Your task to perform on an android device: Clear the cart on ebay.com. Image 0: 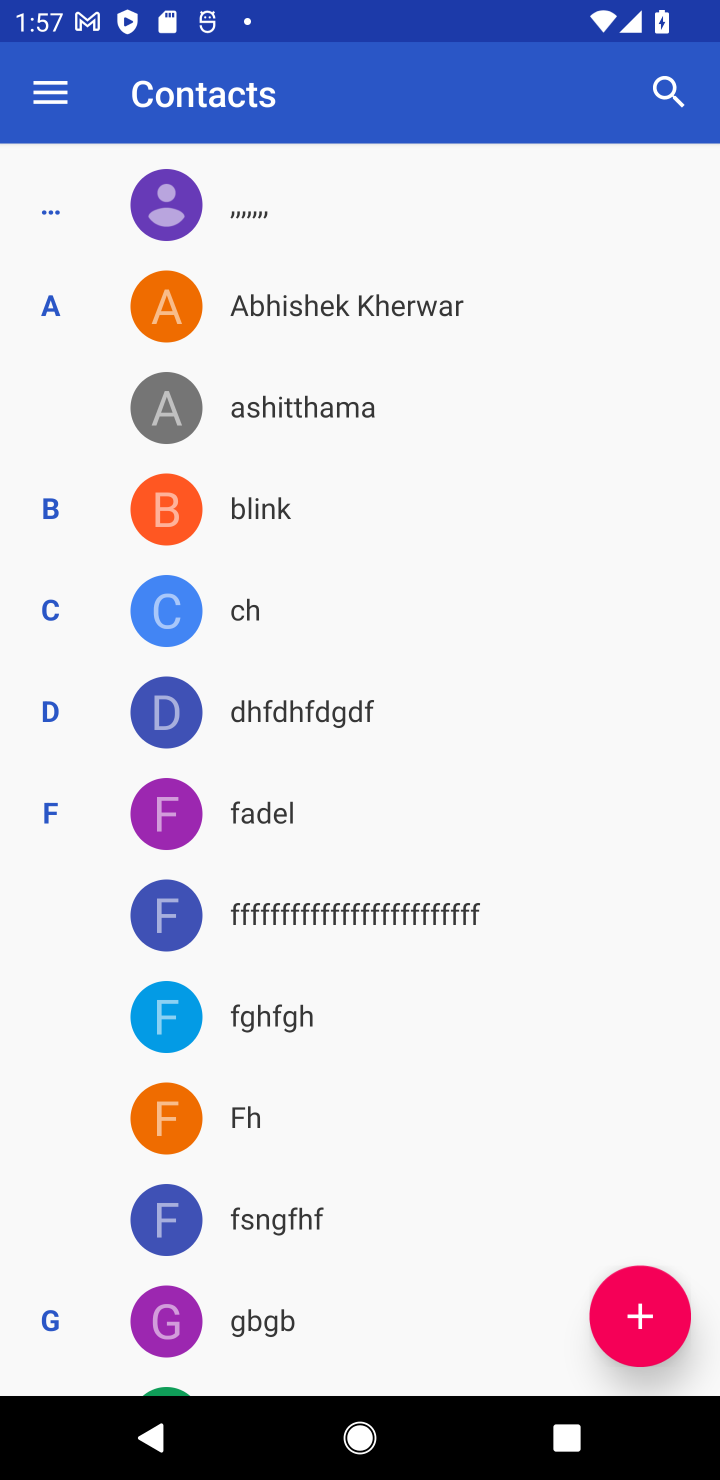
Step 0: press home button
Your task to perform on an android device: Clear the cart on ebay.com. Image 1: 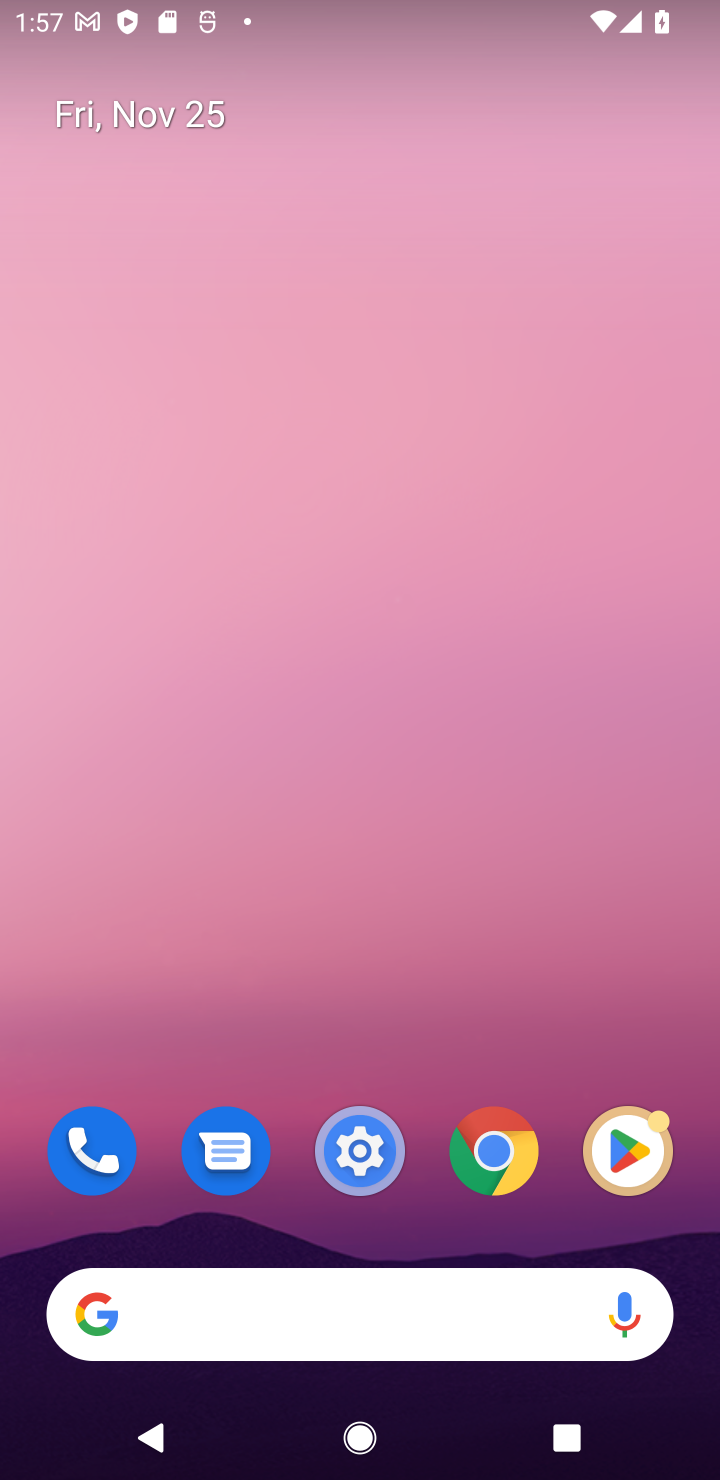
Step 1: click (268, 1300)
Your task to perform on an android device: Clear the cart on ebay.com. Image 2: 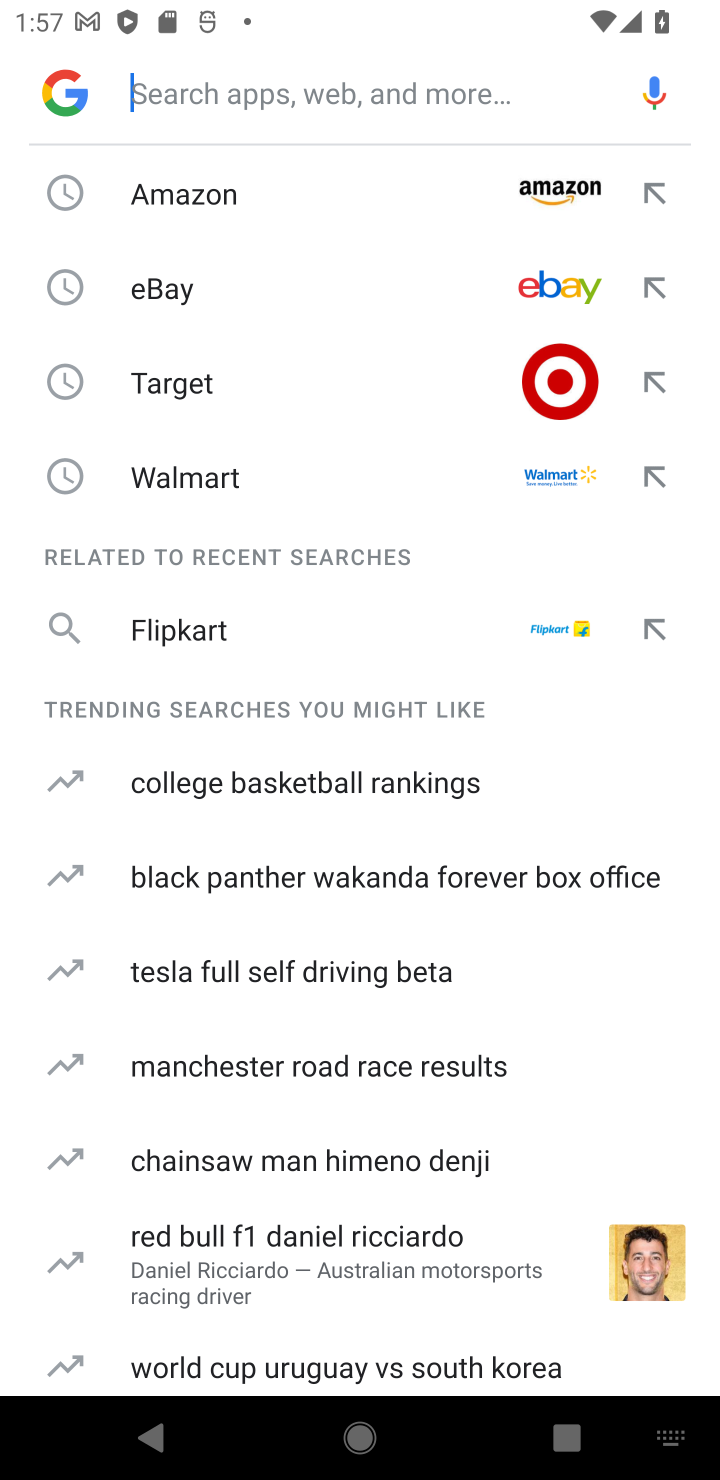
Step 2: type "ebay.com"
Your task to perform on an android device: Clear the cart on ebay.com. Image 3: 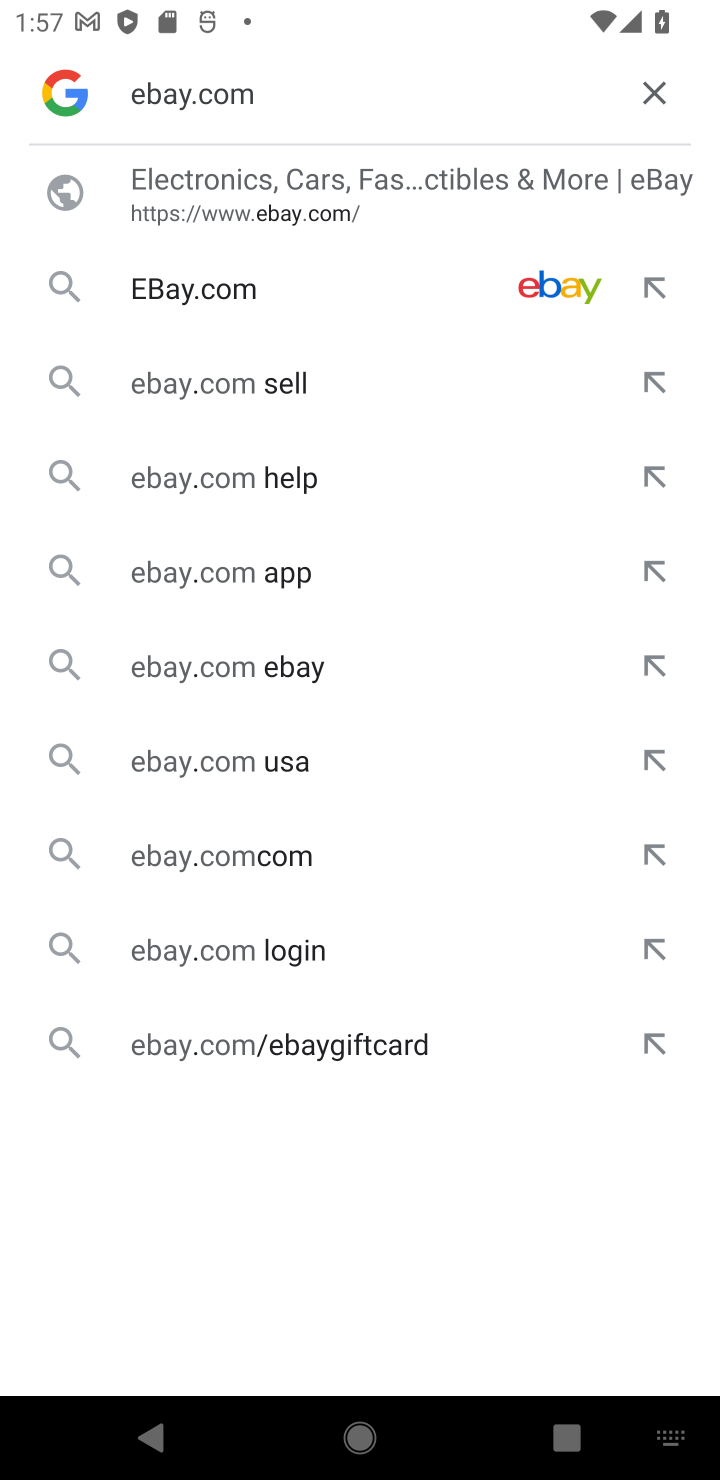
Step 3: click (296, 288)
Your task to perform on an android device: Clear the cart on ebay.com. Image 4: 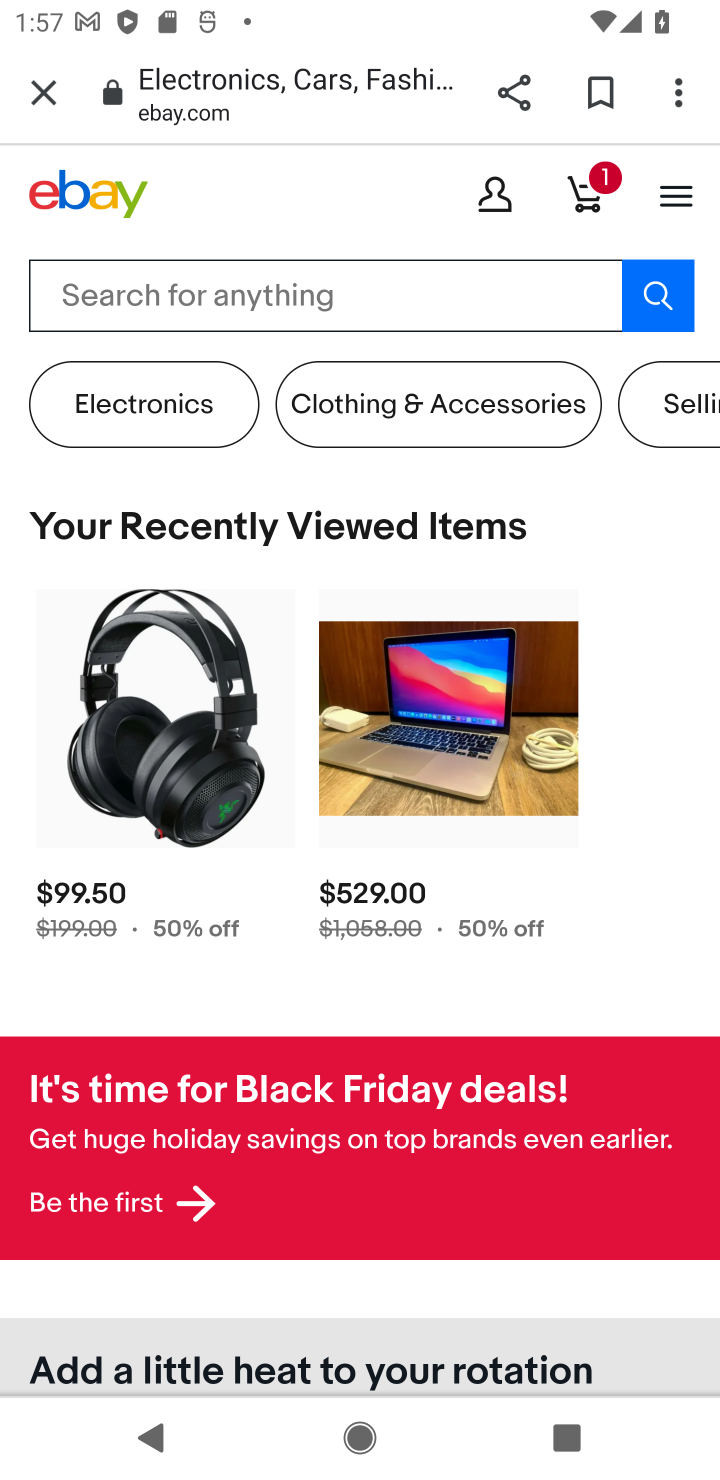
Step 4: click (392, 312)
Your task to perform on an android device: Clear the cart on ebay.com. Image 5: 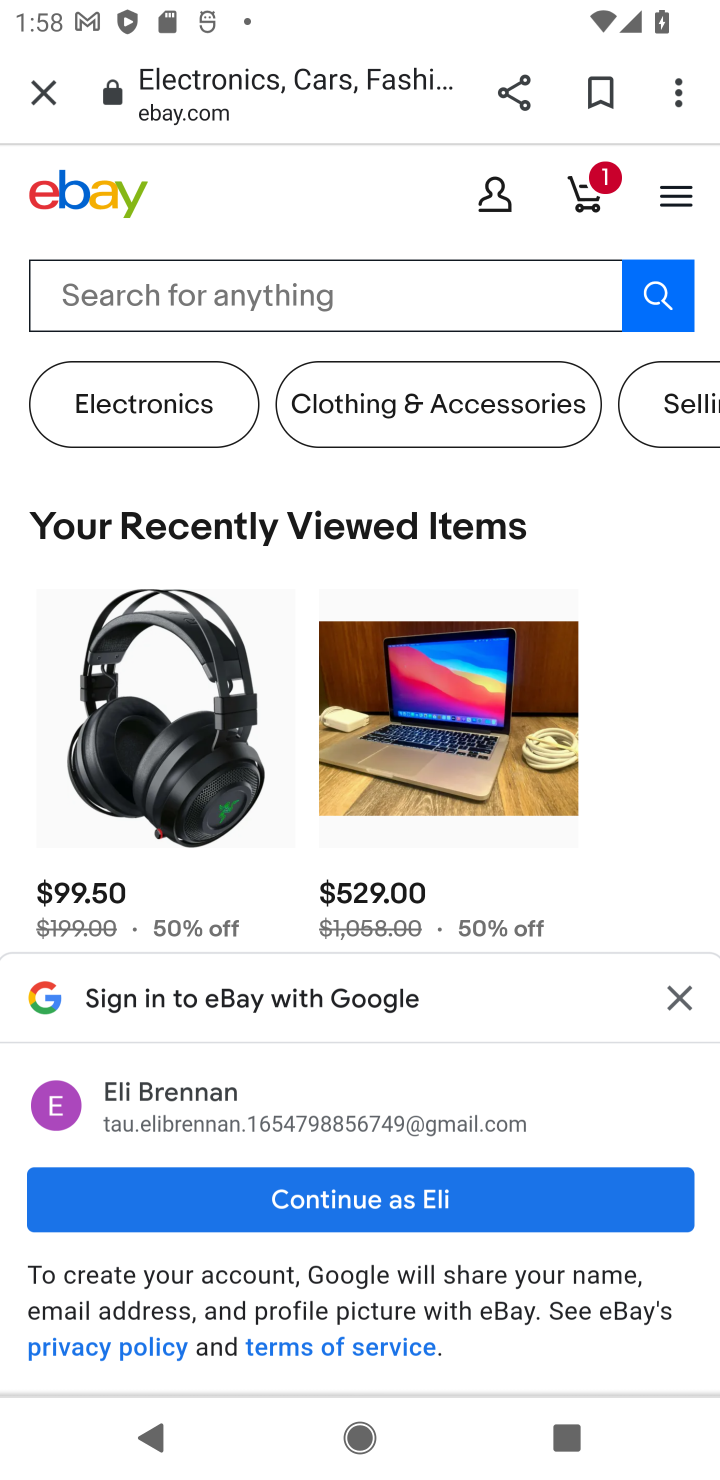
Step 5: click (577, 214)
Your task to perform on an android device: Clear the cart on ebay.com. Image 6: 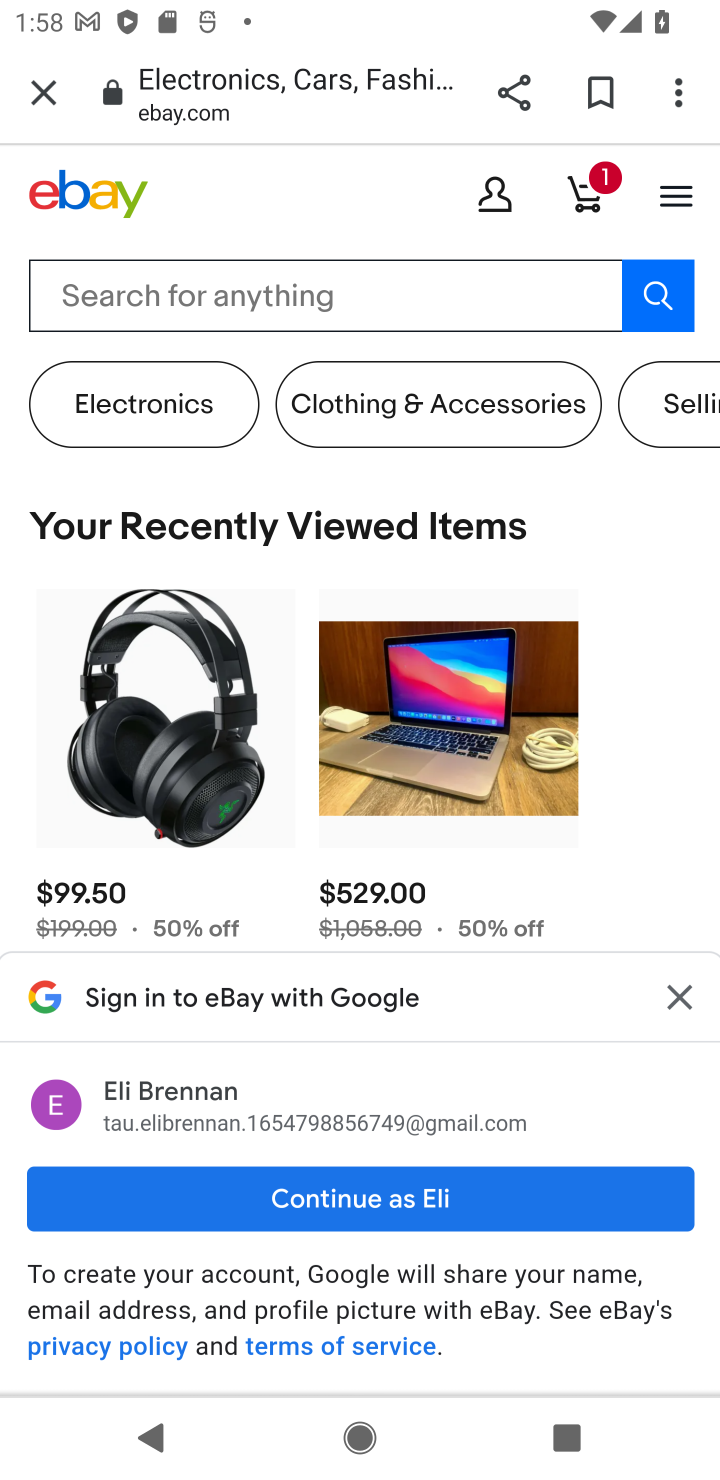
Step 6: click (577, 211)
Your task to perform on an android device: Clear the cart on ebay.com. Image 7: 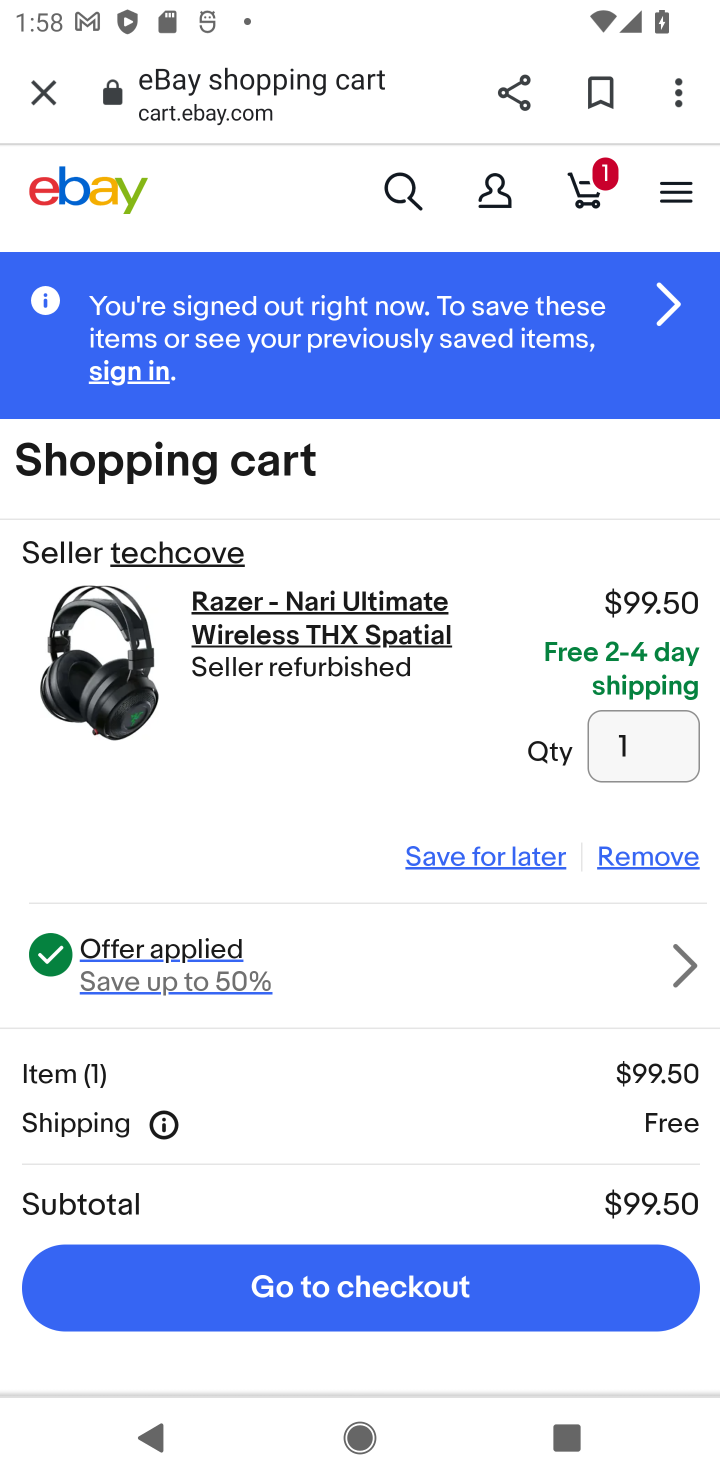
Step 7: click (373, 1290)
Your task to perform on an android device: Clear the cart on ebay.com. Image 8: 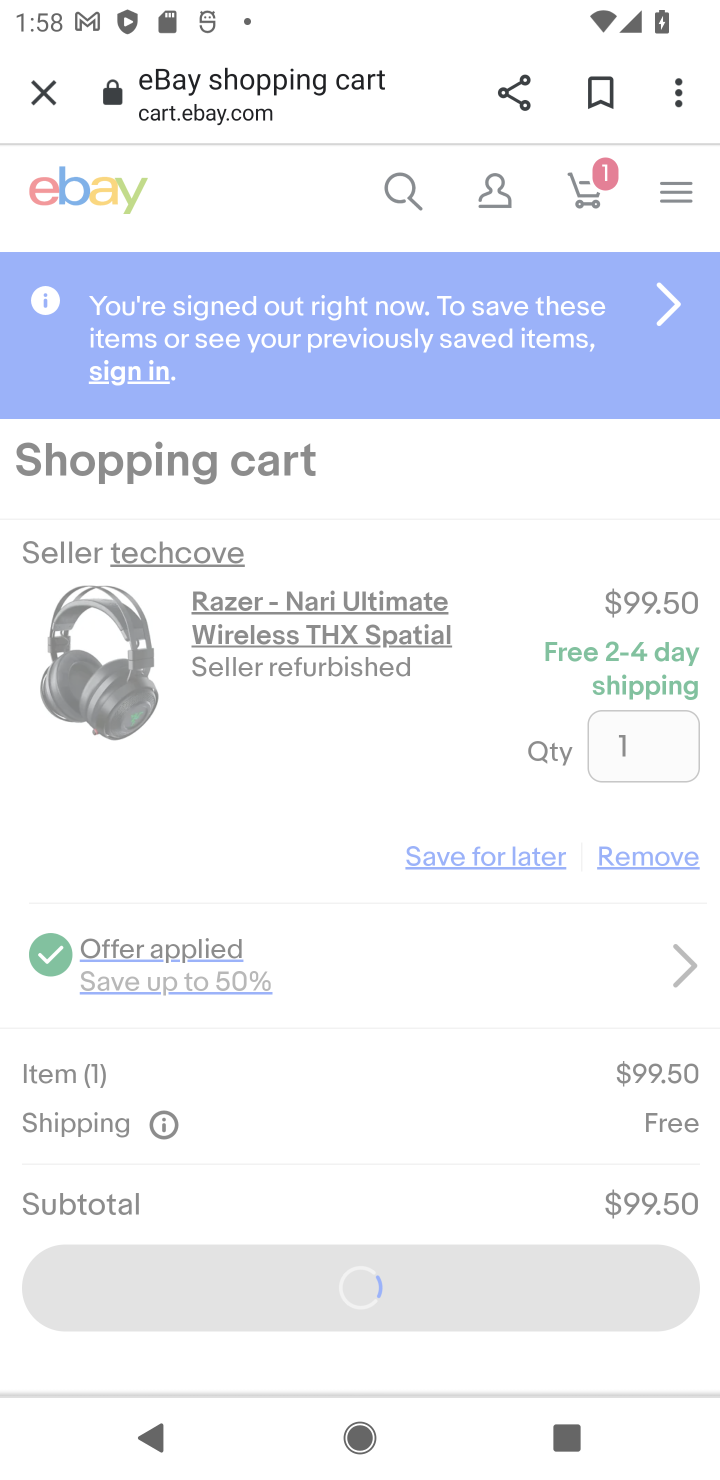
Step 8: task complete